Your task to perform on an android device: turn on the 24-hour format for clock Image 0: 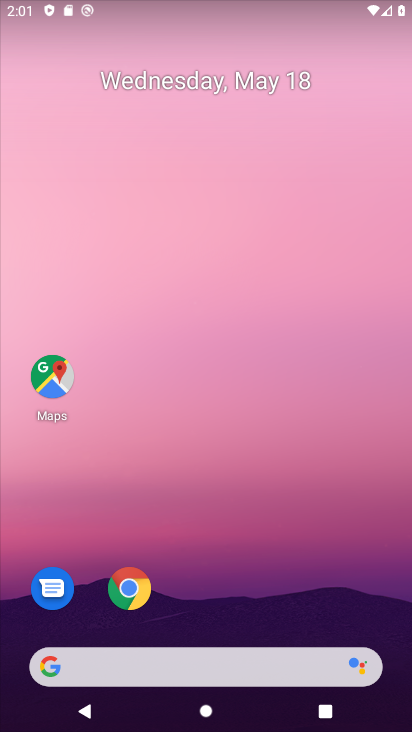
Step 0: drag from (30, 620) to (323, 52)
Your task to perform on an android device: turn on the 24-hour format for clock Image 1: 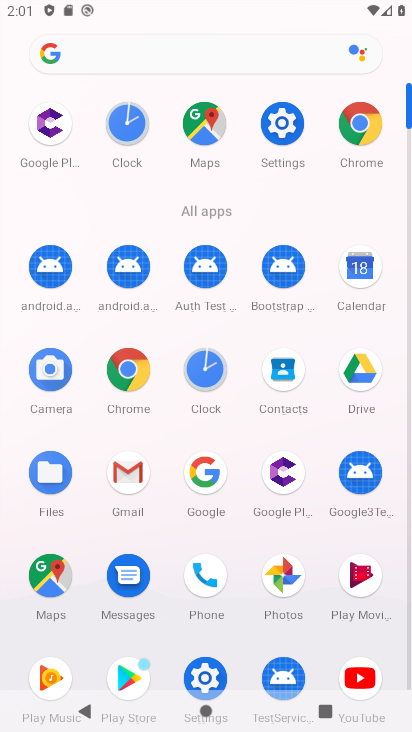
Step 1: click (202, 379)
Your task to perform on an android device: turn on the 24-hour format for clock Image 2: 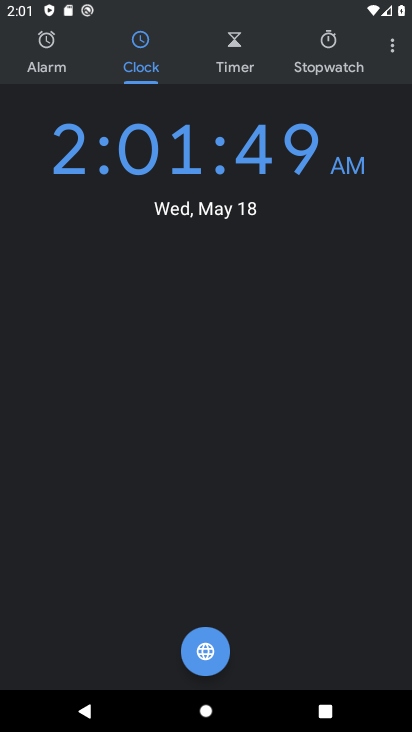
Step 2: click (380, 42)
Your task to perform on an android device: turn on the 24-hour format for clock Image 3: 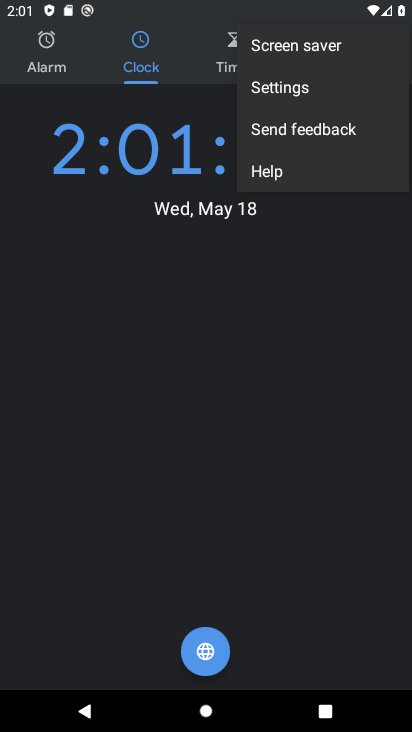
Step 3: click (329, 94)
Your task to perform on an android device: turn on the 24-hour format for clock Image 4: 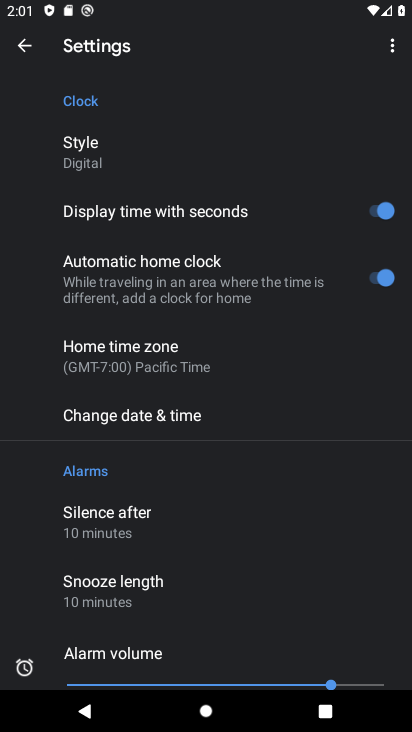
Step 4: drag from (0, 629) to (245, 130)
Your task to perform on an android device: turn on the 24-hour format for clock Image 5: 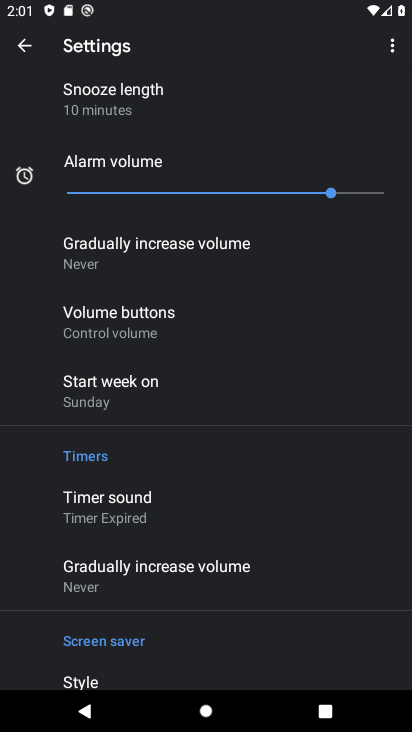
Step 5: drag from (156, 82) to (39, 604)
Your task to perform on an android device: turn on the 24-hour format for clock Image 6: 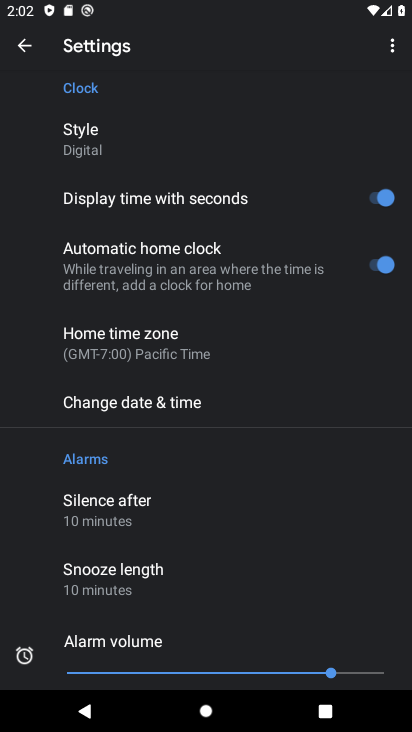
Step 6: click (98, 409)
Your task to perform on an android device: turn on the 24-hour format for clock Image 7: 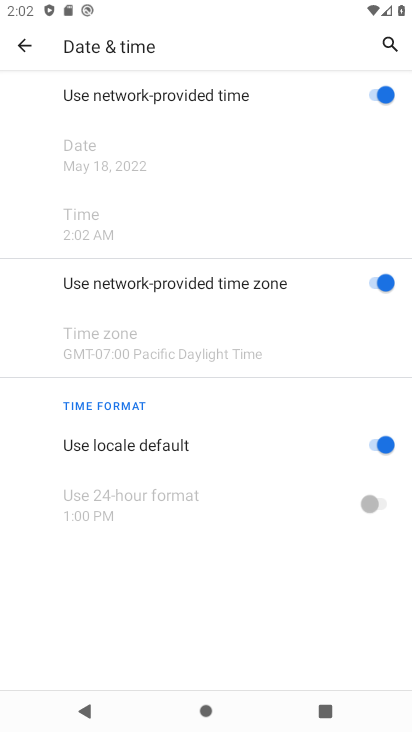
Step 7: click (377, 440)
Your task to perform on an android device: turn on the 24-hour format for clock Image 8: 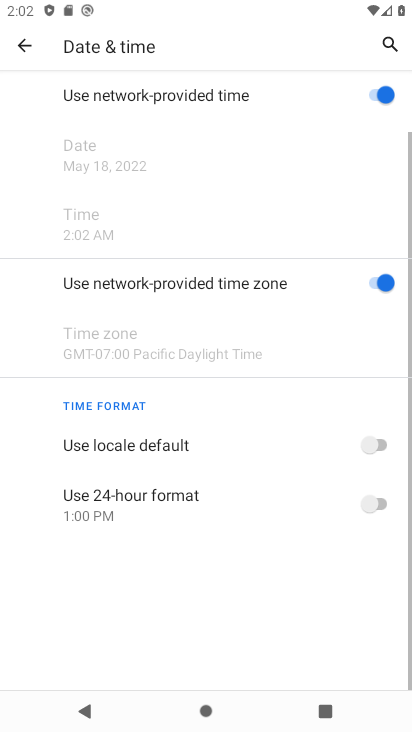
Step 8: click (371, 504)
Your task to perform on an android device: turn on the 24-hour format for clock Image 9: 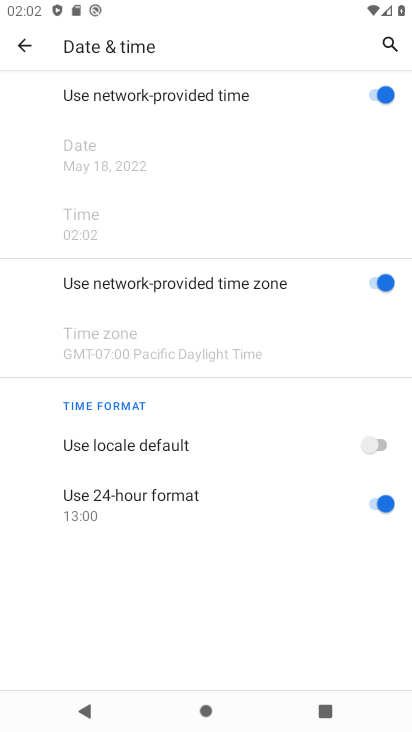
Step 9: task complete